Your task to perform on an android device: Clear all items from cart on ebay.com. Image 0: 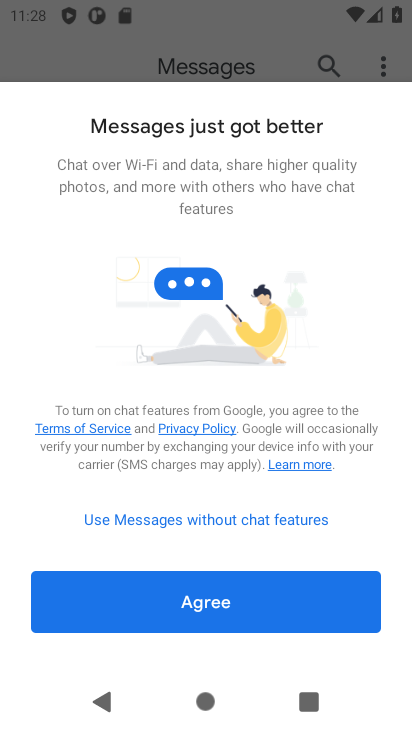
Step 0: press home button
Your task to perform on an android device: Clear all items from cart on ebay.com. Image 1: 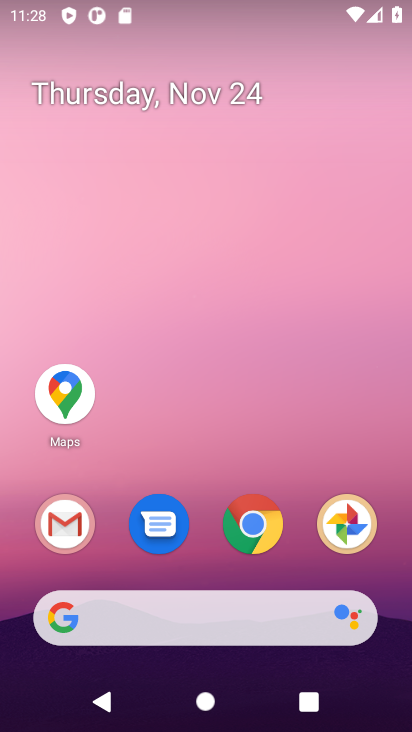
Step 1: click (256, 535)
Your task to perform on an android device: Clear all items from cart on ebay.com. Image 2: 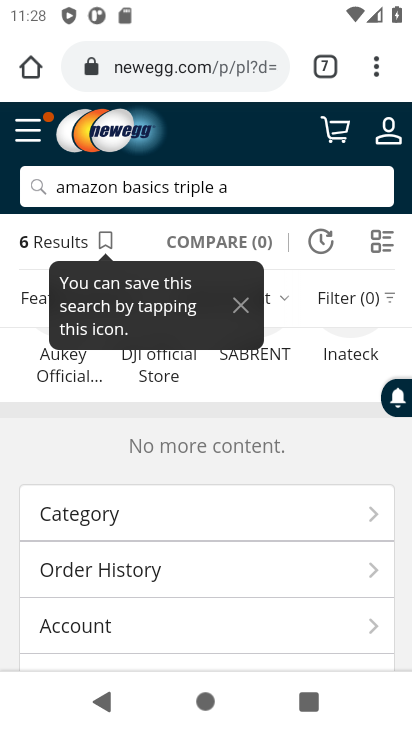
Step 2: click (170, 74)
Your task to perform on an android device: Clear all items from cart on ebay.com. Image 3: 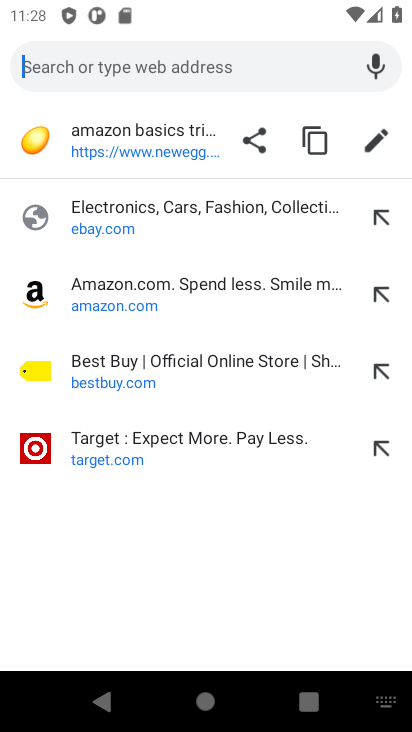
Step 3: click (92, 208)
Your task to perform on an android device: Clear all items from cart on ebay.com. Image 4: 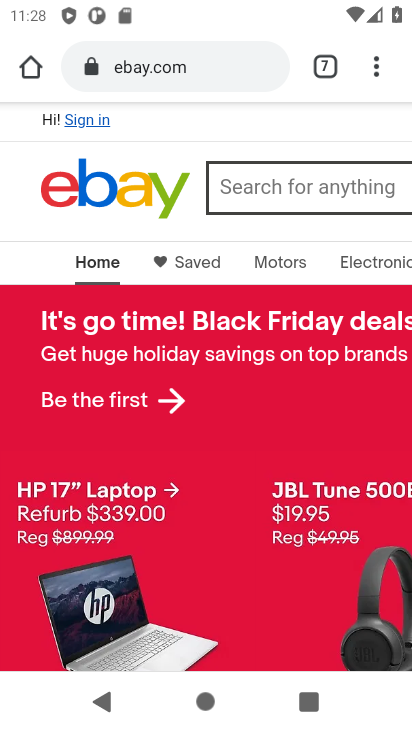
Step 4: drag from (347, 129) to (19, 104)
Your task to perform on an android device: Clear all items from cart on ebay.com. Image 5: 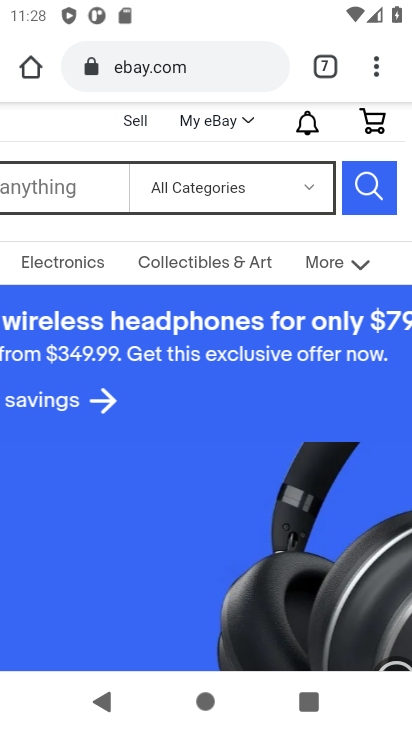
Step 5: click (362, 123)
Your task to perform on an android device: Clear all items from cart on ebay.com. Image 6: 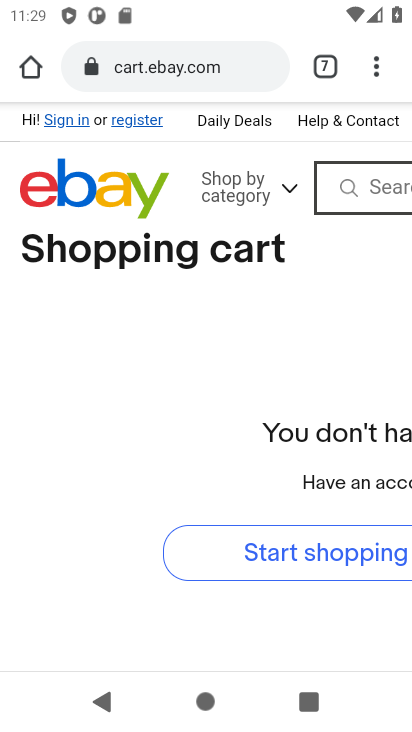
Step 6: task complete